Your task to perform on an android device: Go to Reddit.com Image 0: 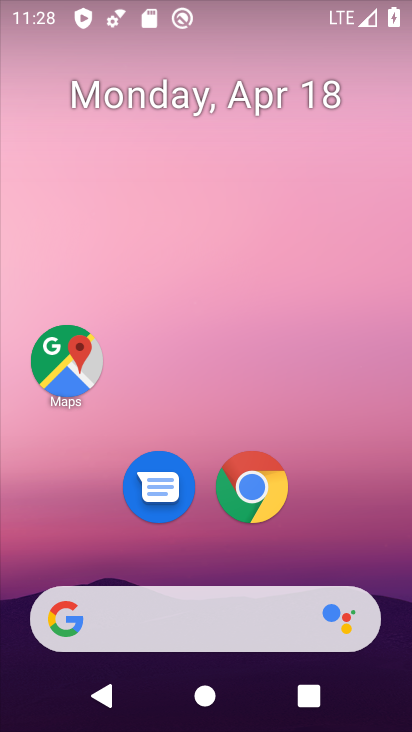
Step 0: click (251, 492)
Your task to perform on an android device: Go to Reddit.com Image 1: 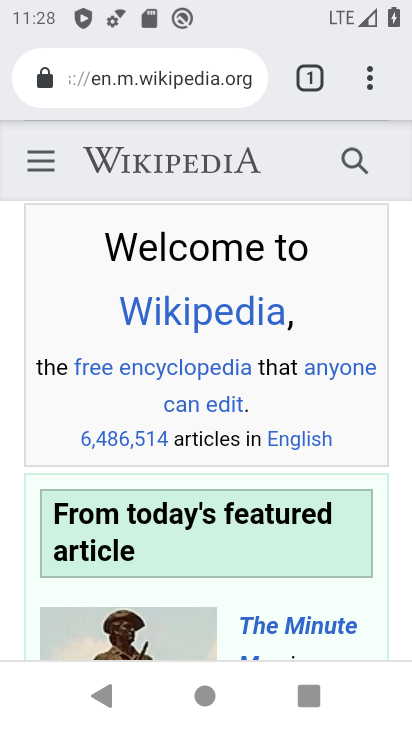
Step 1: click (365, 77)
Your task to perform on an android device: Go to Reddit.com Image 2: 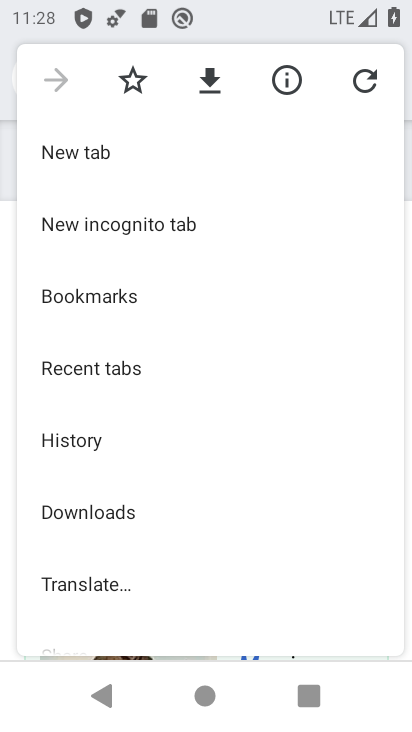
Step 2: click (100, 146)
Your task to perform on an android device: Go to Reddit.com Image 3: 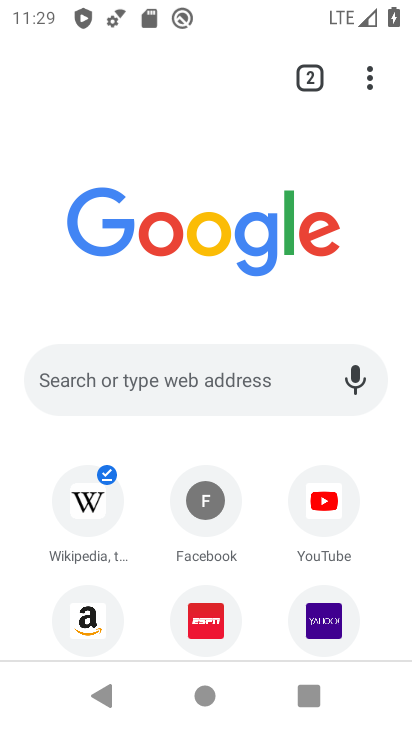
Step 3: click (183, 373)
Your task to perform on an android device: Go to Reddit.com Image 4: 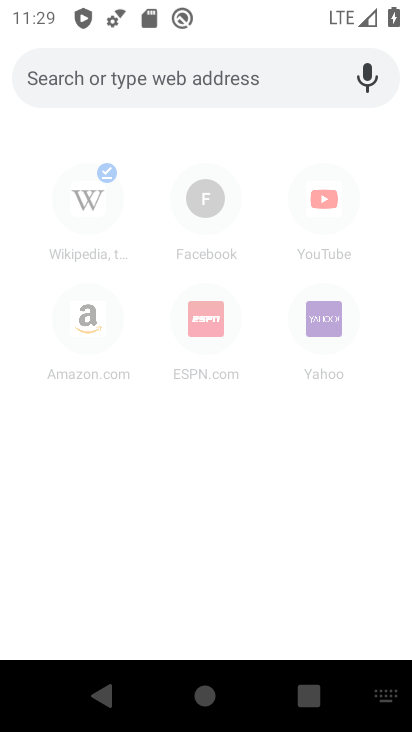
Step 4: type "Reddit.com"
Your task to perform on an android device: Go to Reddit.com Image 5: 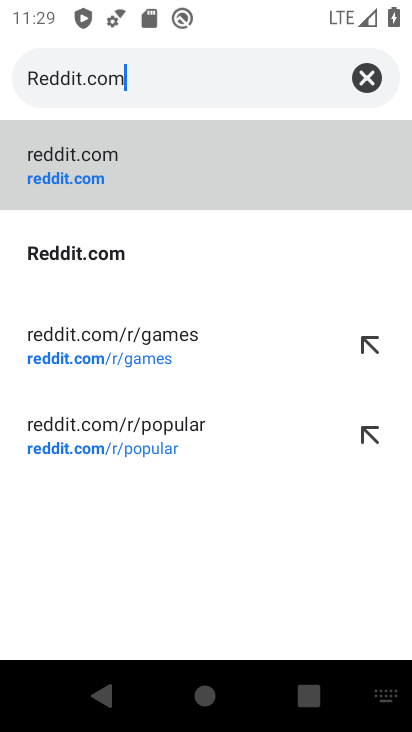
Step 5: type ""
Your task to perform on an android device: Go to Reddit.com Image 6: 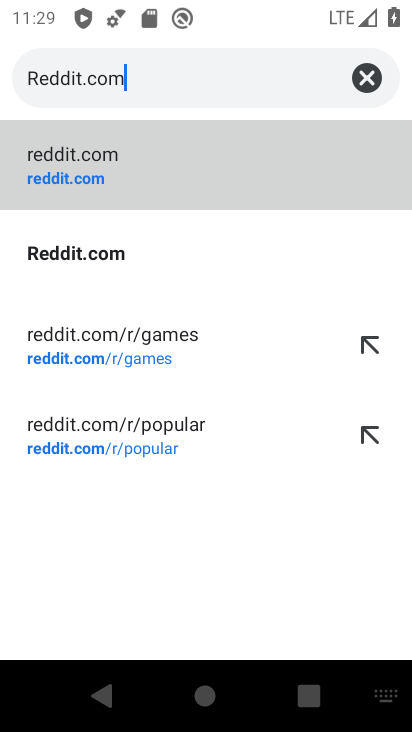
Step 6: click (116, 256)
Your task to perform on an android device: Go to Reddit.com Image 7: 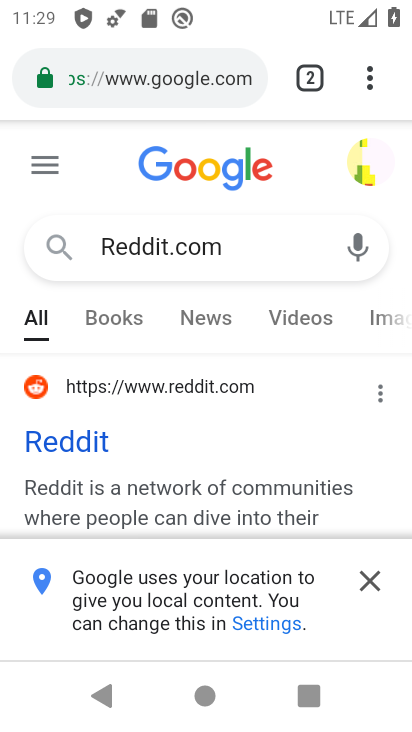
Step 7: task complete